Your task to perform on an android device: clear all cookies in the chrome app Image 0: 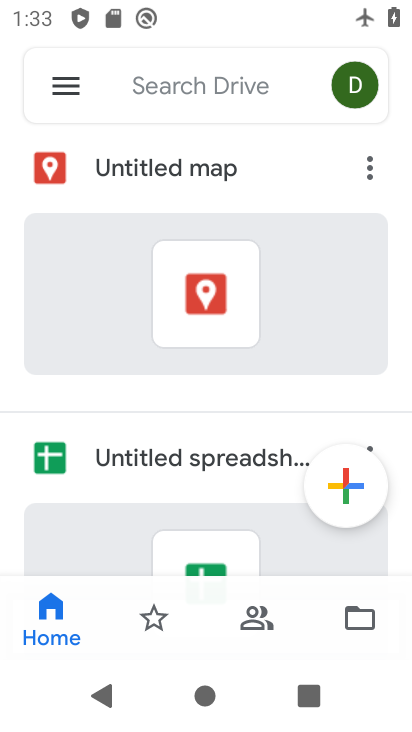
Step 0: press home button
Your task to perform on an android device: clear all cookies in the chrome app Image 1: 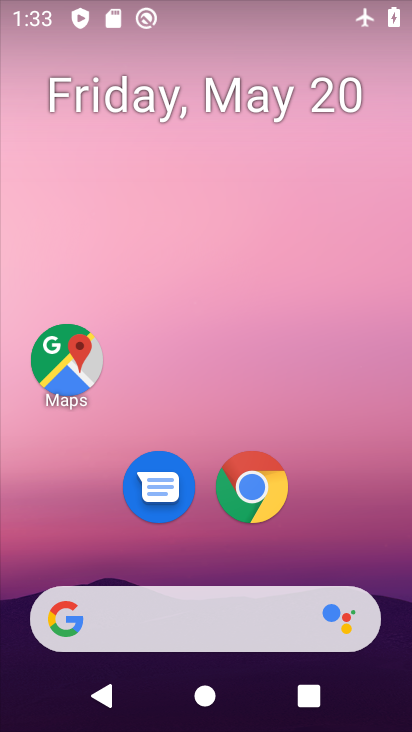
Step 1: drag from (358, 525) to (327, 69)
Your task to perform on an android device: clear all cookies in the chrome app Image 2: 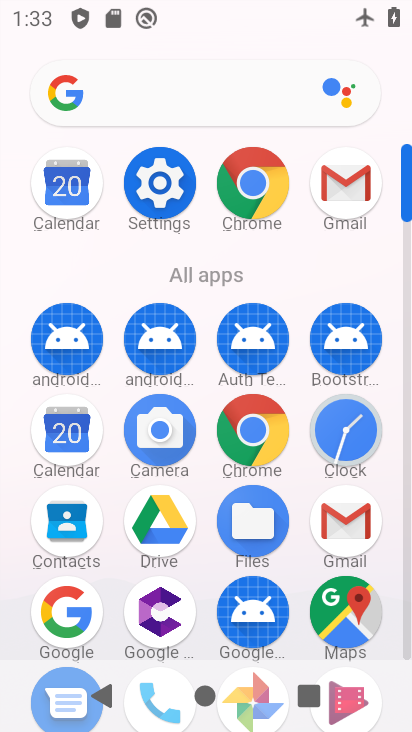
Step 2: click (257, 173)
Your task to perform on an android device: clear all cookies in the chrome app Image 3: 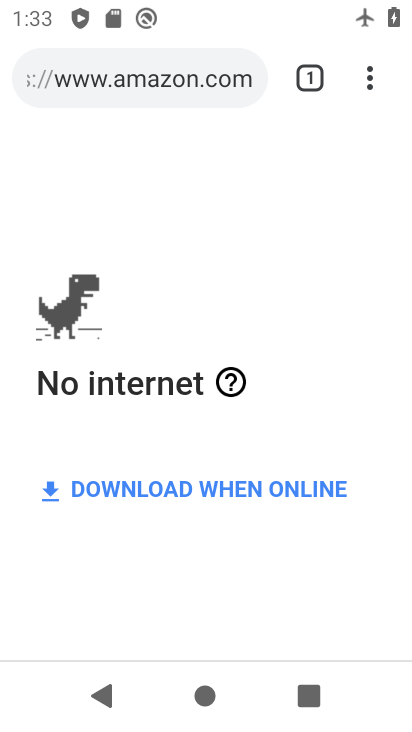
Step 3: task complete